Your task to perform on an android device: Open the Play Movies app and select the watchlist tab. Image 0: 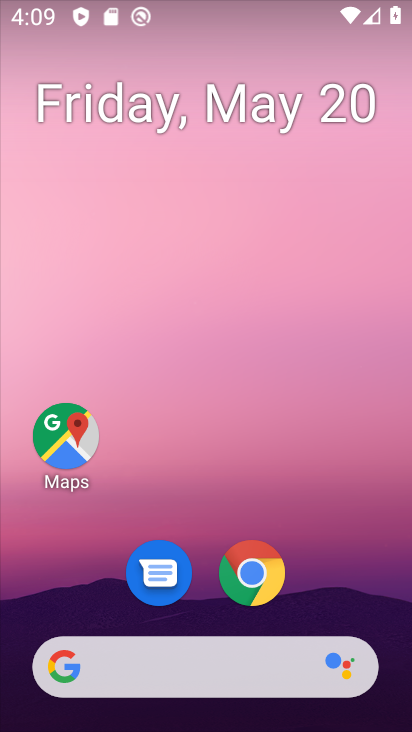
Step 0: drag from (383, 575) to (310, 206)
Your task to perform on an android device: Open the Play Movies app and select the watchlist tab. Image 1: 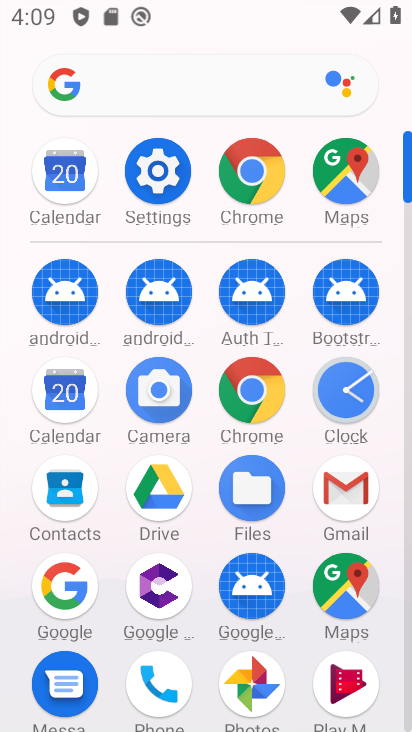
Step 1: click (346, 673)
Your task to perform on an android device: Open the Play Movies app and select the watchlist tab. Image 2: 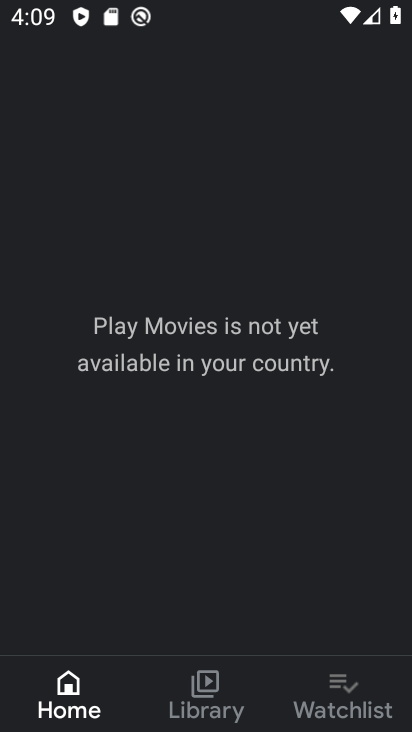
Step 2: click (326, 682)
Your task to perform on an android device: Open the Play Movies app and select the watchlist tab. Image 3: 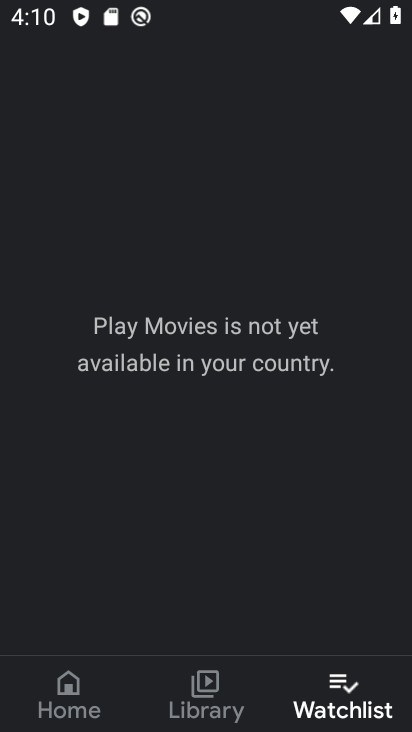
Step 3: task complete